Your task to perform on an android device: Go to Wikipedia Image 0: 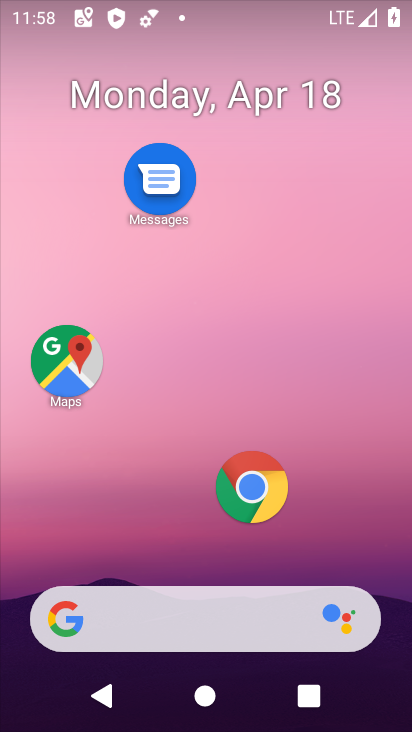
Step 0: click (63, 369)
Your task to perform on an android device: Go to Wikipedia Image 1: 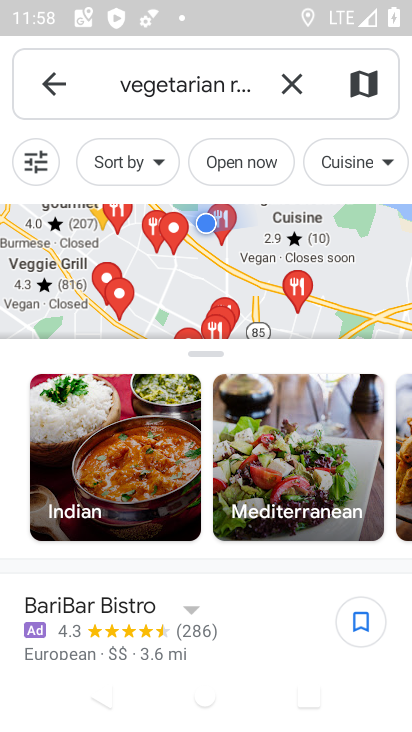
Step 1: press home button
Your task to perform on an android device: Go to Wikipedia Image 2: 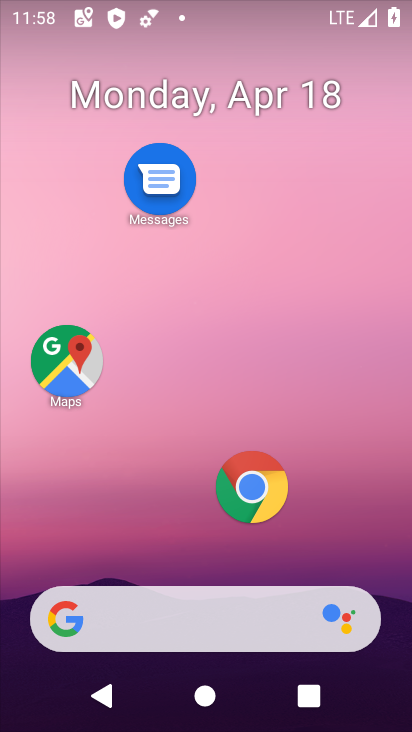
Step 2: click (250, 488)
Your task to perform on an android device: Go to Wikipedia Image 3: 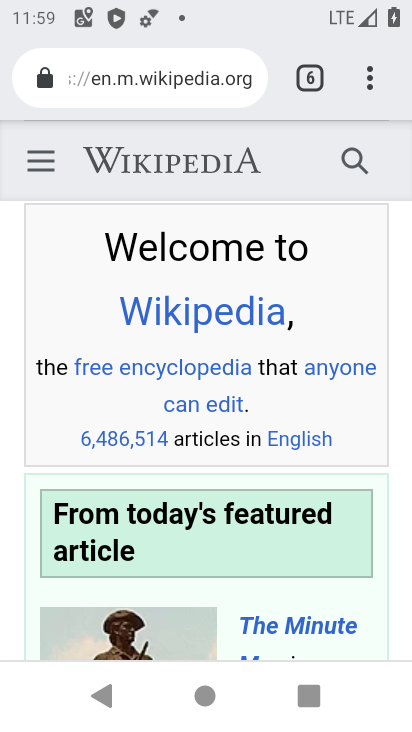
Step 3: task complete